Your task to perform on an android device: Open the calendar and show me this week's events? Image 0: 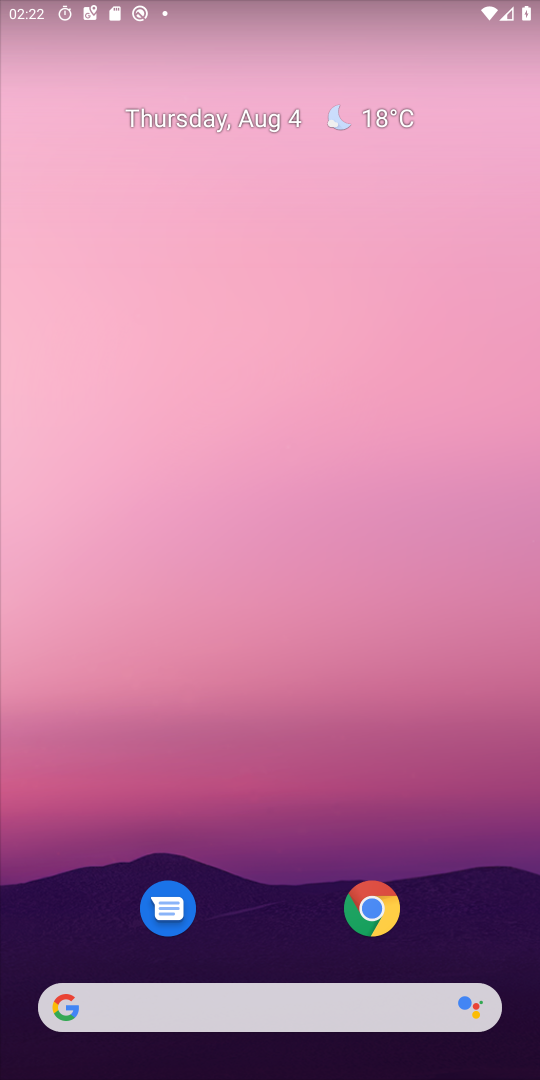
Step 0: press home button
Your task to perform on an android device: Open the calendar and show me this week's events? Image 1: 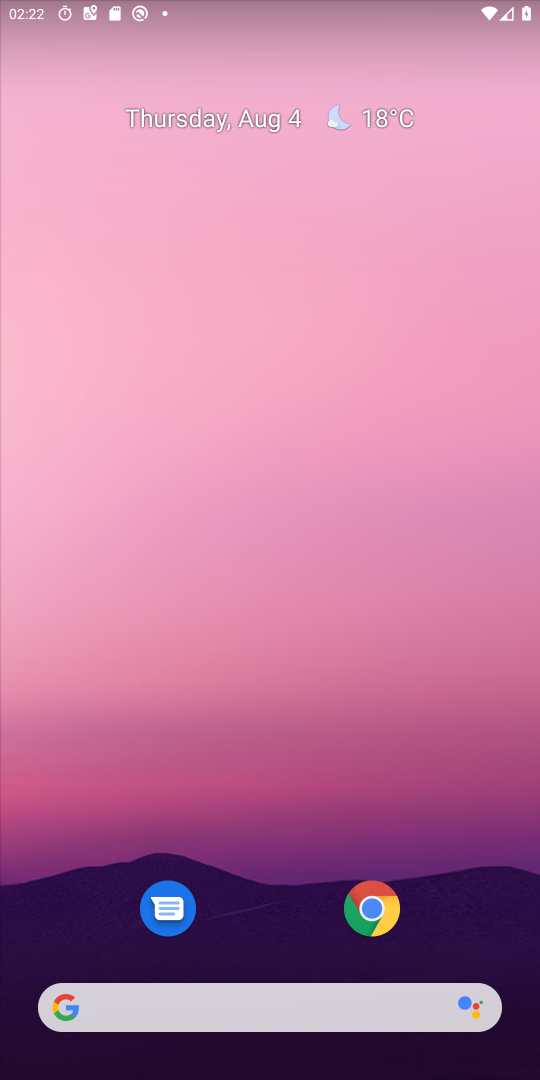
Step 1: drag from (357, 1017) to (267, 215)
Your task to perform on an android device: Open the calendar and show me this week's events? Image 2: 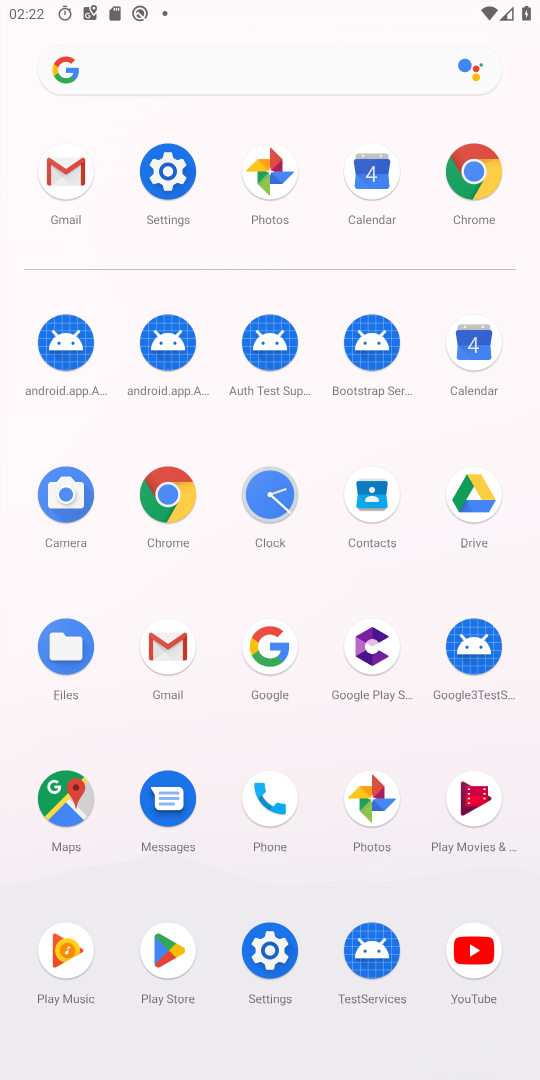
Step 2: click (470, 347)
Your task to perform on an android device: Open the calendar and show me this week's events? Image 3: 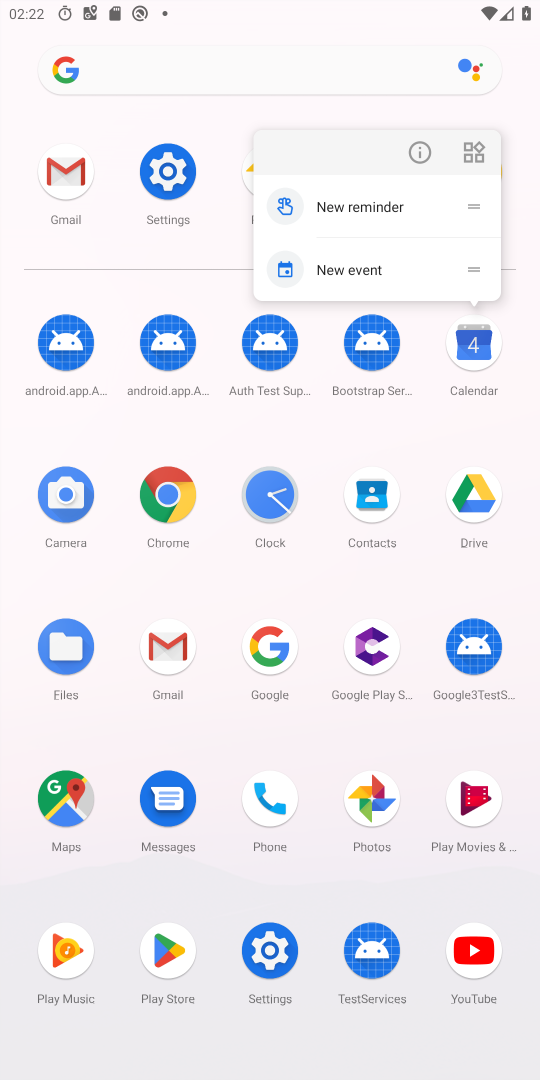
Step 3: click (470, 347)
Your task to perform on an android device: Open the calendar and show me this week's events? Image 4: 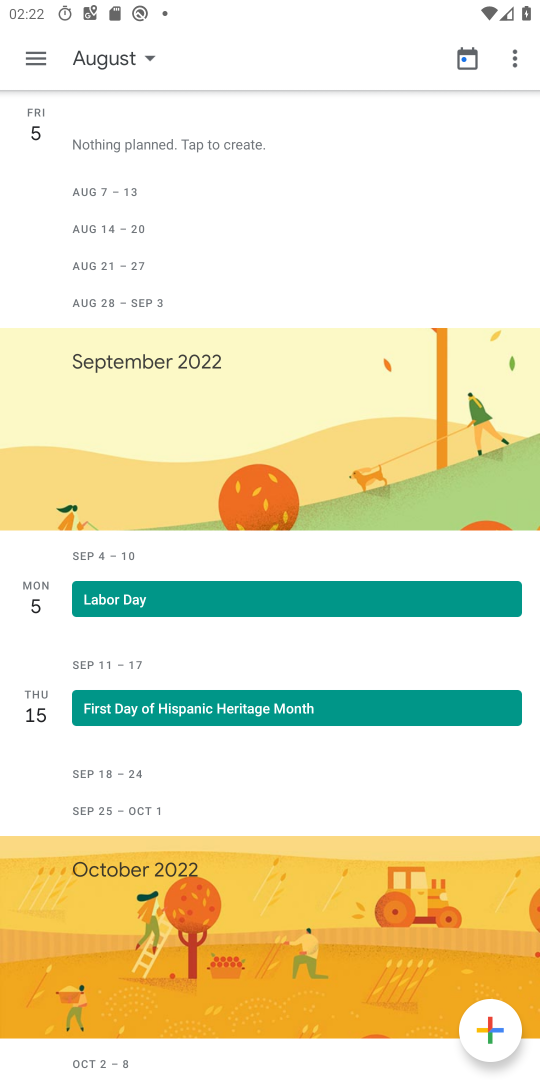
Step 4: click (48, 61)
Your task to perform on an android device: Open the calendar and show me this week's events? Image 5: 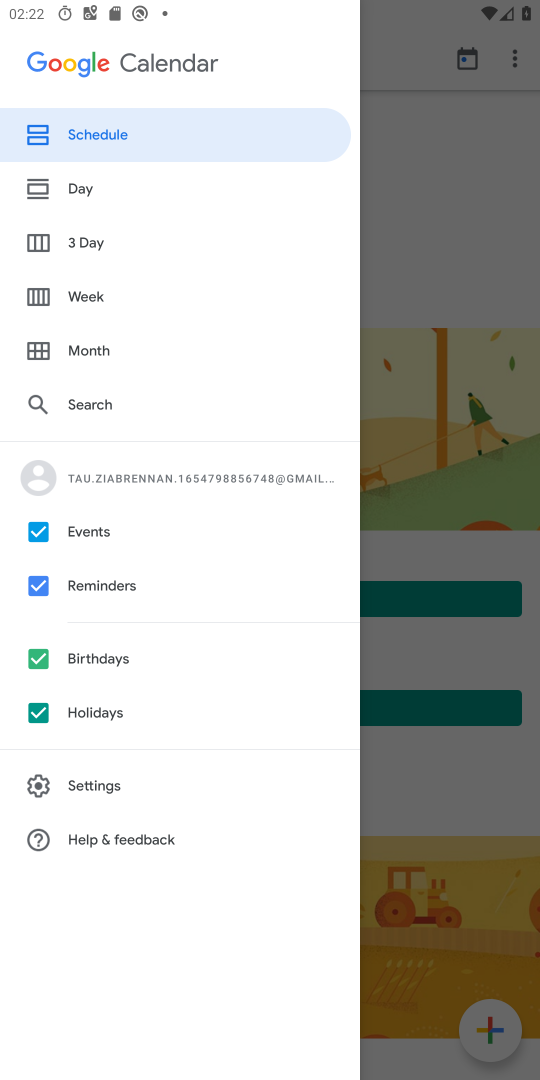
Step 5: click (86, 347)
Your task to perform on an android device: Open the calendar and show me this week's events? Image 6: 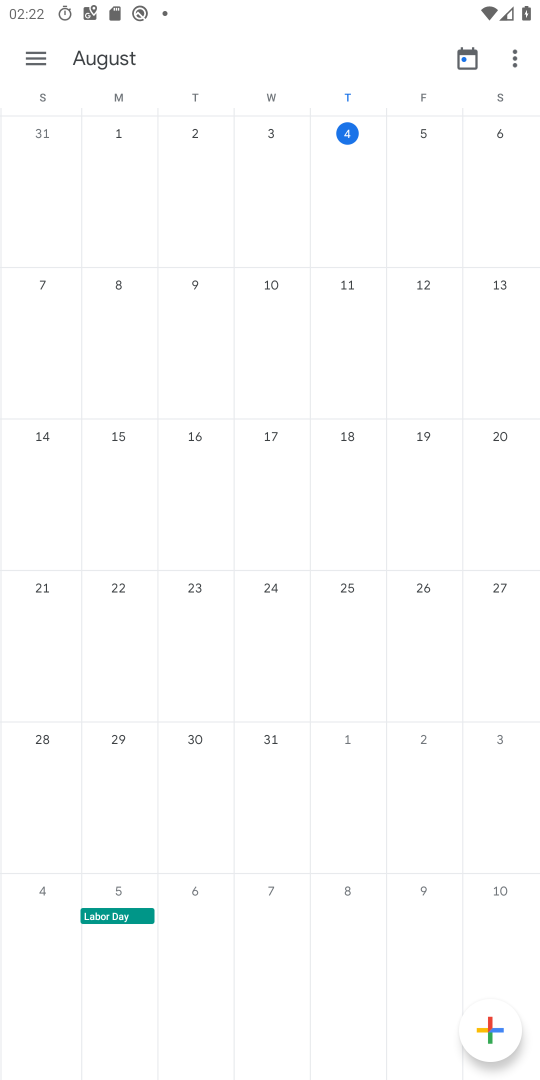
Step 6: click (42, 51)
Your task to perform on an android device: Open the calendar and show me this week's events? Image 7: 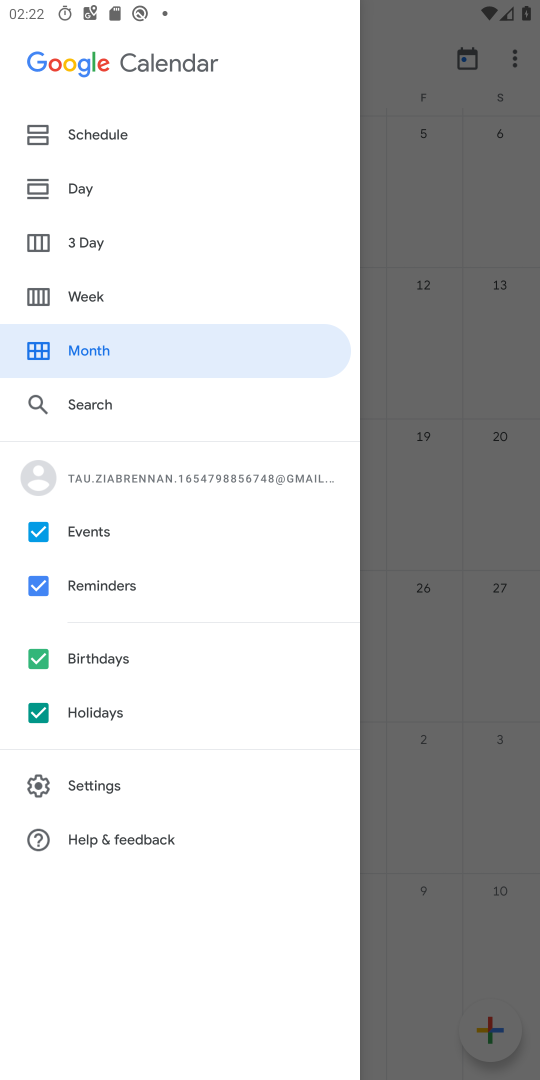
Step 7: click (108, 303)
Your task to perform on an android device: Open the calendar and show me this week's events? Image 8: 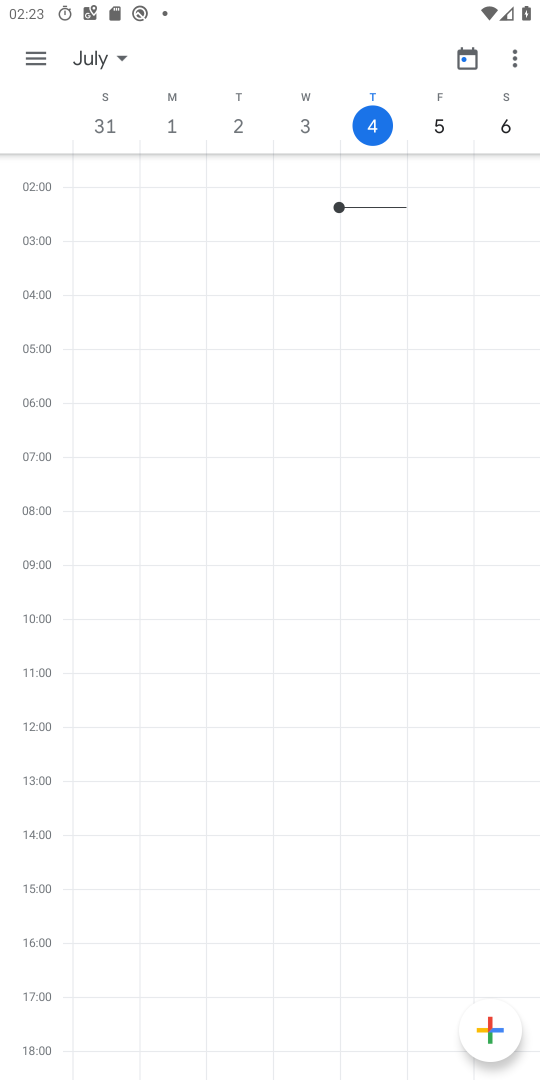
Step 8: task complete